Your task to perform on an android device: Open ESPN.com Image 0: 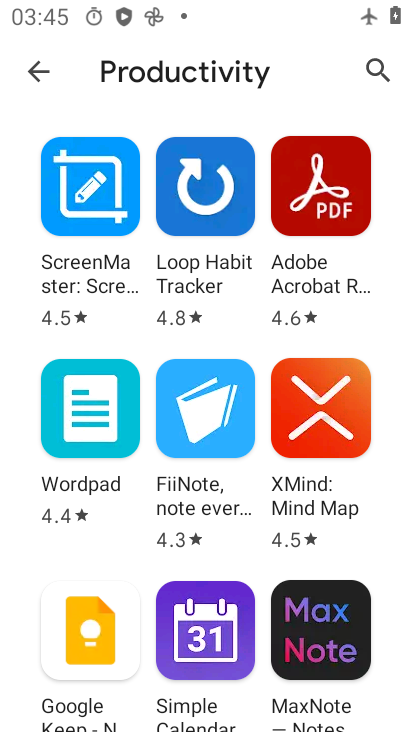
Step 0: press home button
Your task to perform on an android device: Open ESPN.com Image 1: 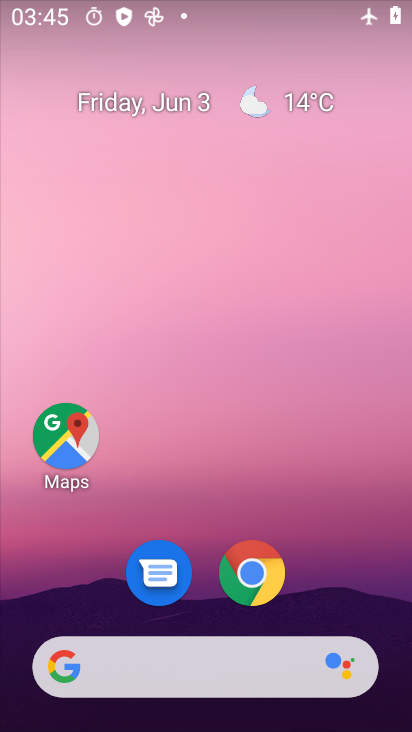
Step 1: drag from (205, 676) to (325, 45)
Your task to perform on an android device: Open ESPN.com Image 2: 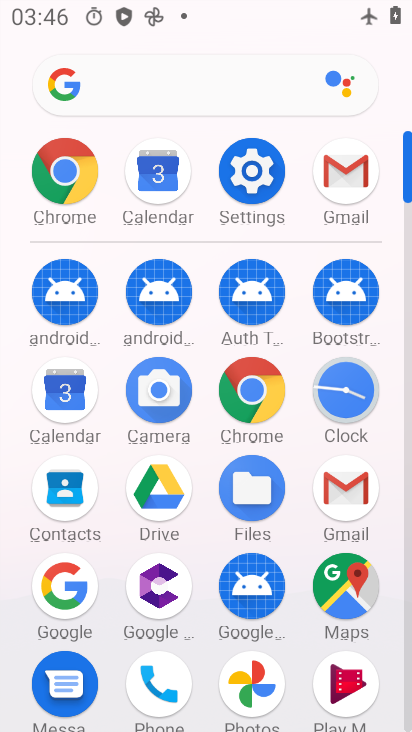
Step 2: click (262, 401)
Your task to perform on an android device: Open ESPN.com Image 3: 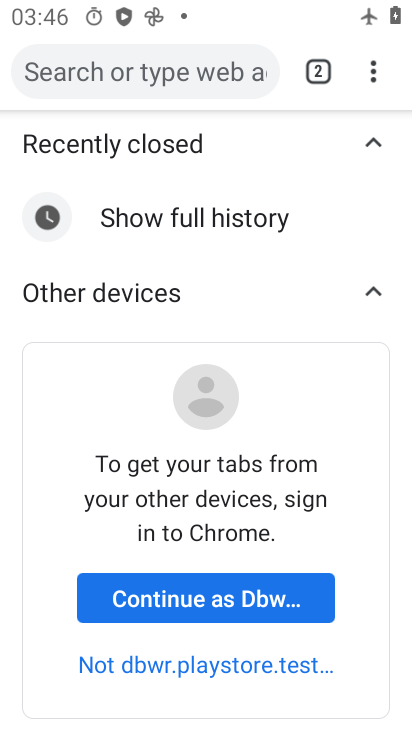
Step 3: press back button
Your task to perform on an android device: Open ESPN.com Image 4: 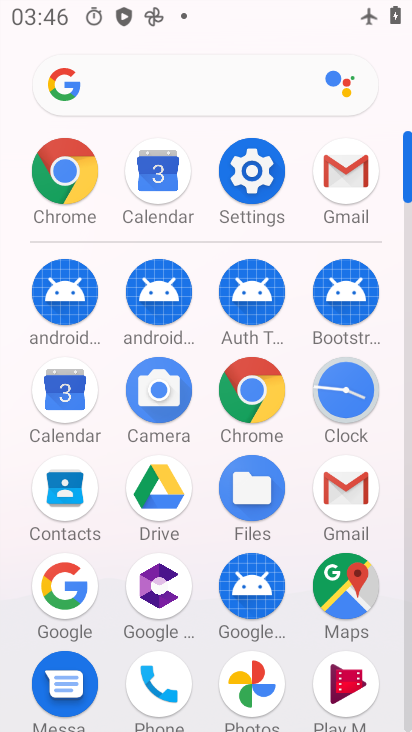
Step 4: click (260, 404)
Your task to perform on an android device: Open ESPN.com Image 5: 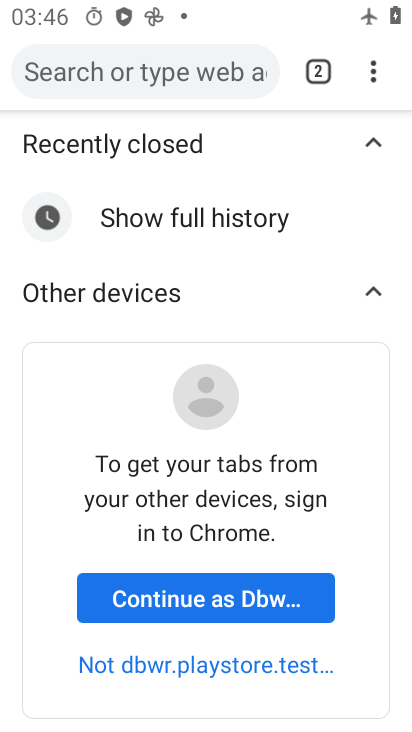
Step 5: click (210, 72)
Your task to perform on an android device: Open ESPN.com Image 6: 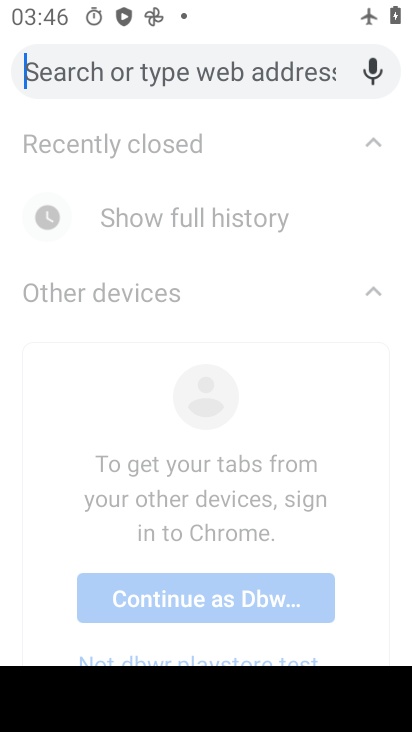
Step 6: type "espn.com"
Your task to perform on an android device: Open ESPN.com Image 7: 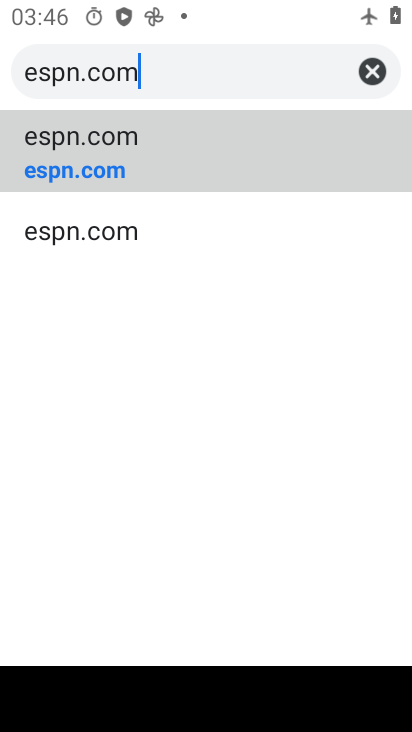
Step 7: click (251, 161)
Your task to perform on an android device: Open ESPN.com Image 8: 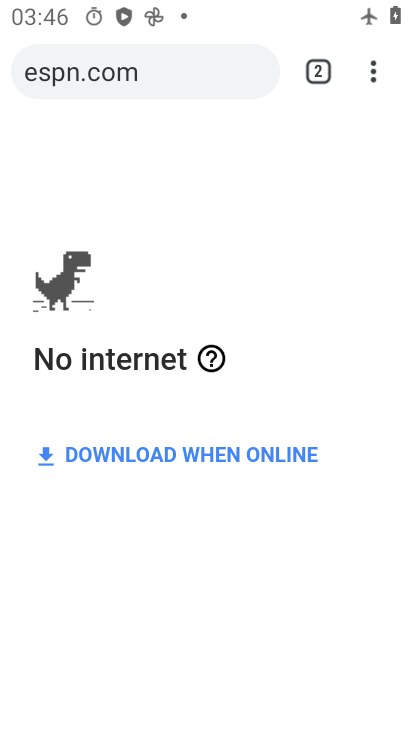
Step 8: task complete